Your task to perform on an android device: change your default location settings in chrome Image 0: 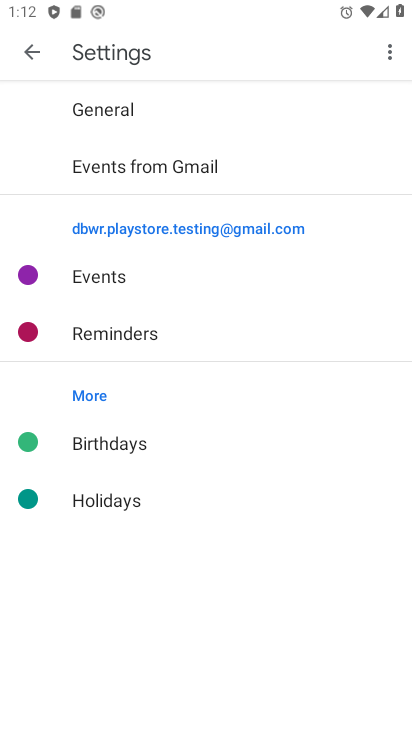
Step 0: press home button
Your task to perform on an android device: change your default location settings in chrome Image 1: 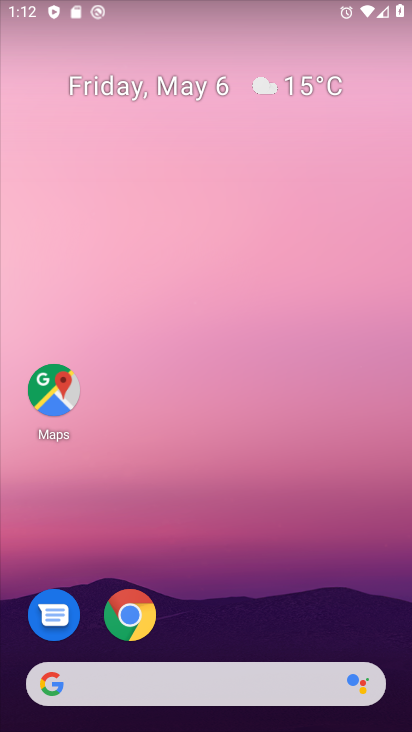
Step 1: drag from (258, 577) to (299, 51)
Your task to perform on an android device: change your default location settings in chrome Image 2: 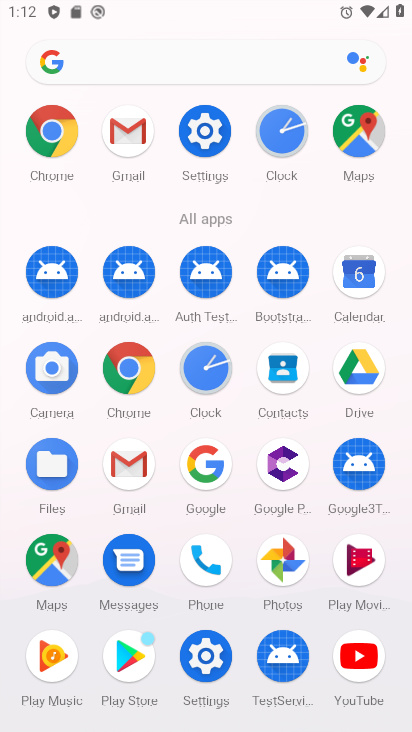
Step 2: click (133, 368)
Your task to perform on an android device: change your default location settings in chrome Image 3: 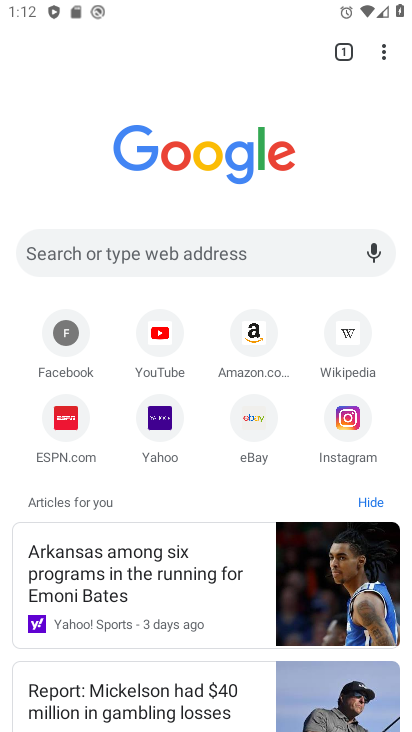
Step 3: drag from (383, 50) to (223, 425)
Your task to perform on an android device: change your default location settings in chrome Image 4: 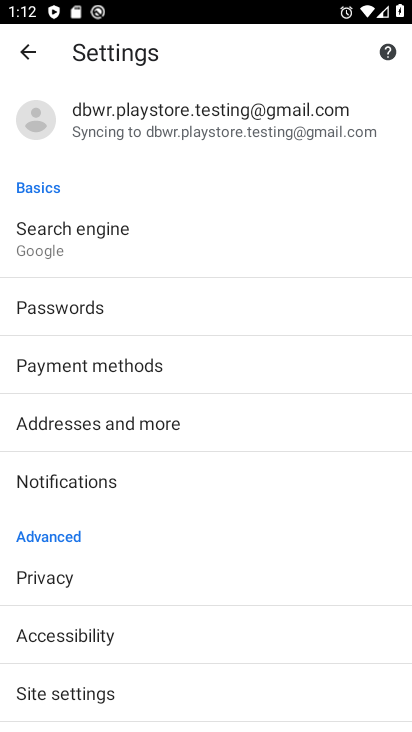
Step 4: drag from (205, 574) to (266, 268)
Your task to perform on an android device: change your default location settings in chrome Image 5: 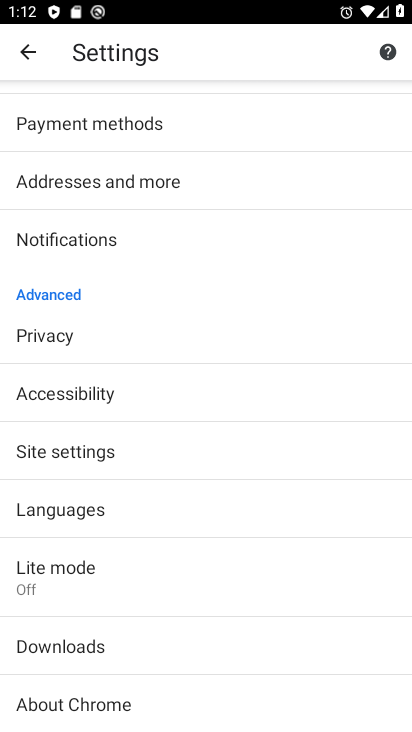
Step 5: click (175, 451)
Your task to perform on an android device: change your default location settings in chrome Image 6: 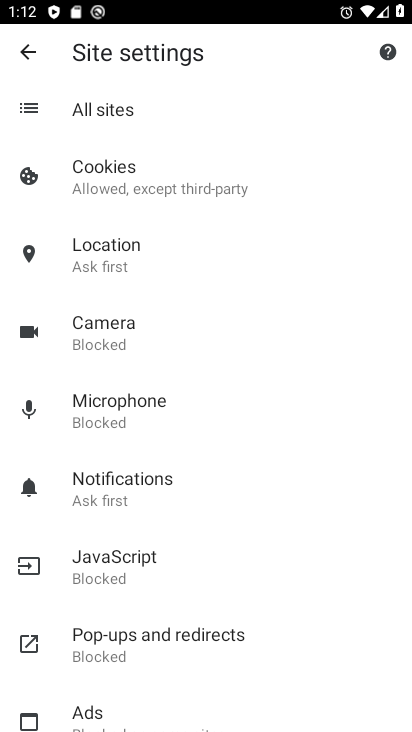
Step 6: click (184, 243)
Your task to perform on an android device: change your default location settings in chrome Image 7: 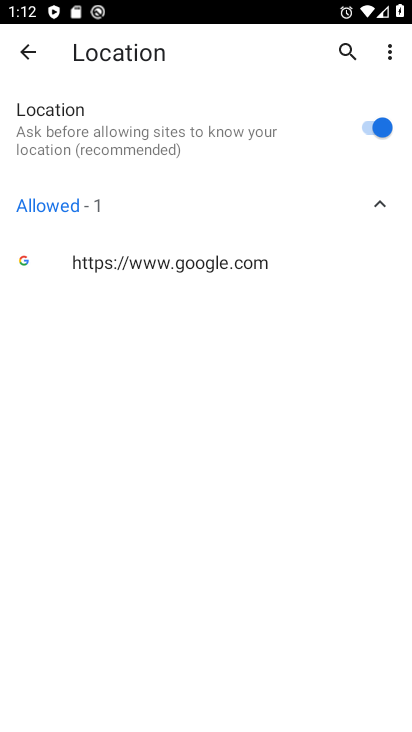
Step 7: click (374, 127)
Your task to perform on an android device: change your default location settings in chrome Image 8: 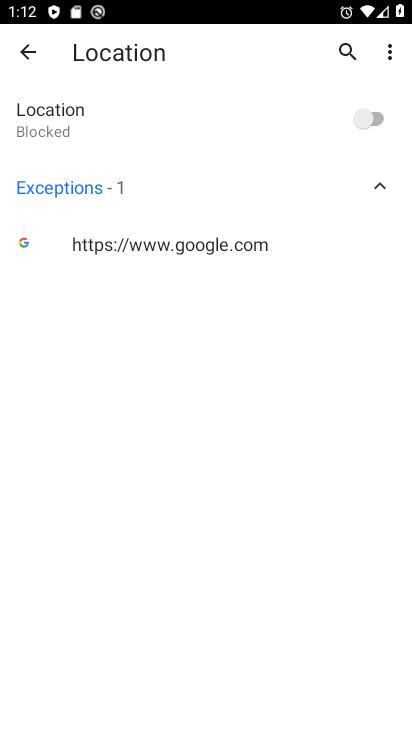
Step 8: task complete